Your task to perform on an android device: set default search engine in the chrome app Image 0: 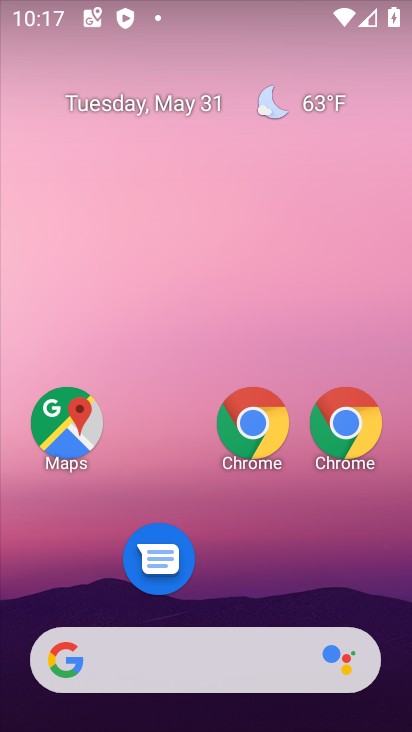
Step 0: click (194, 27)
Your task to perform on an android device: set default search engine in the chrome app Image 1: 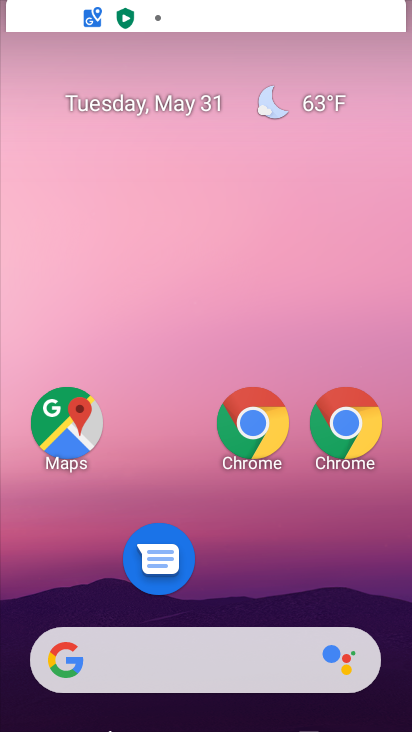
Step 1: drag from (231, 555) to (180, 90)
Your task to perform on an android device: set default search engine in the chrome app Image 2: 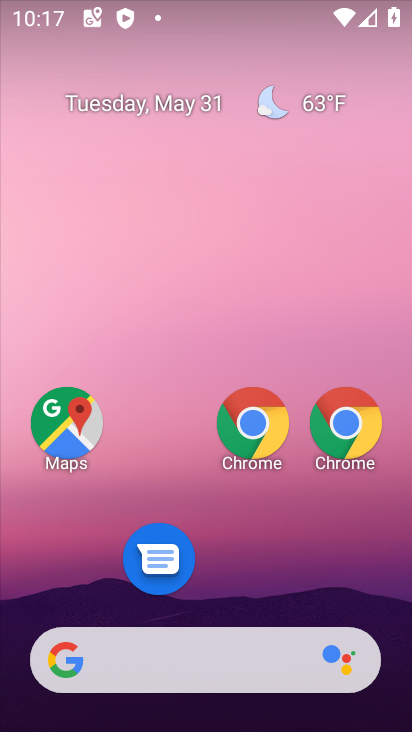
Step 2: drag from (248, 685) to (132, 87)
Your task to perform on an android device: set default search engine in the chrome app Image 3: 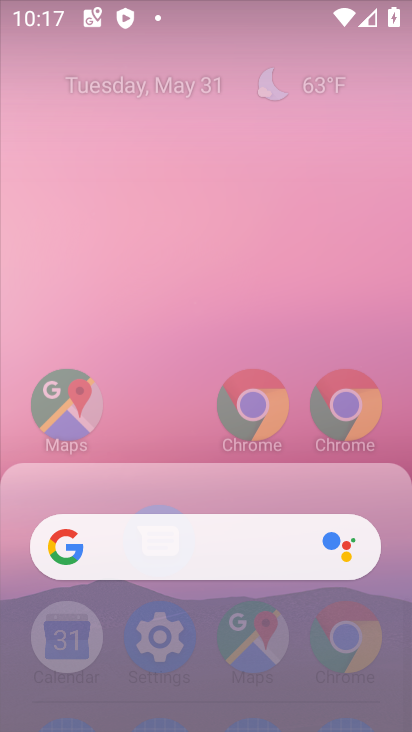
Step 3: drag from (173, 476) to (176, 12)
Your task to perform on an android device: set default search engine in the chrome app Image 4: 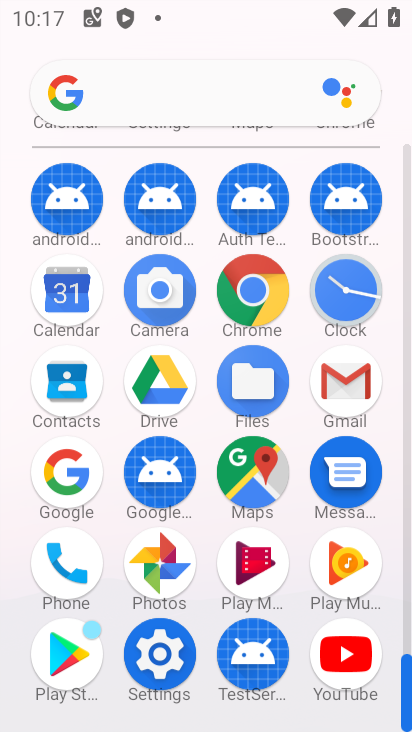
Step 4: drag from (217, 500) to (154, 30)
Your task to perform on an android device: set default search engine in the chrome app Image 5: 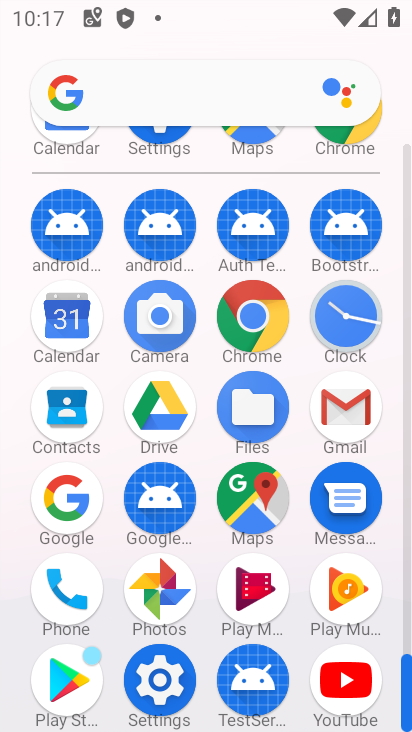
Step 5: click (246, 312)
Your task to perform on an android device: set default search engine in the chrome app Image 6: 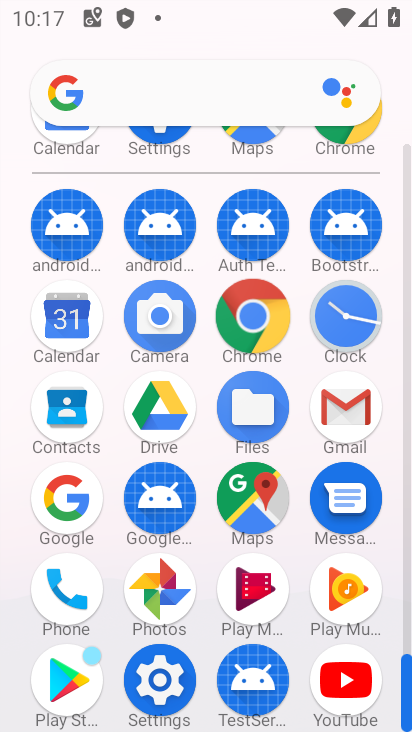
Step 6: click (249, 315)
Your task to perform on an android device: set default search engine in the chrome app Image 7: 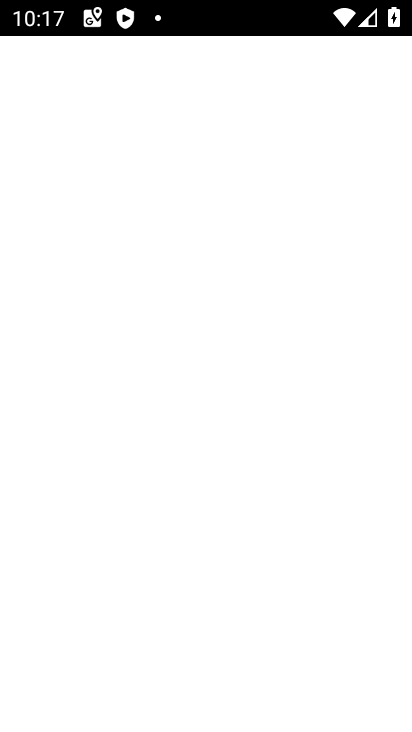
Step 7: click (242, 320)
Your task to perform on an android device: set default search engine in the chrome app Image 8: 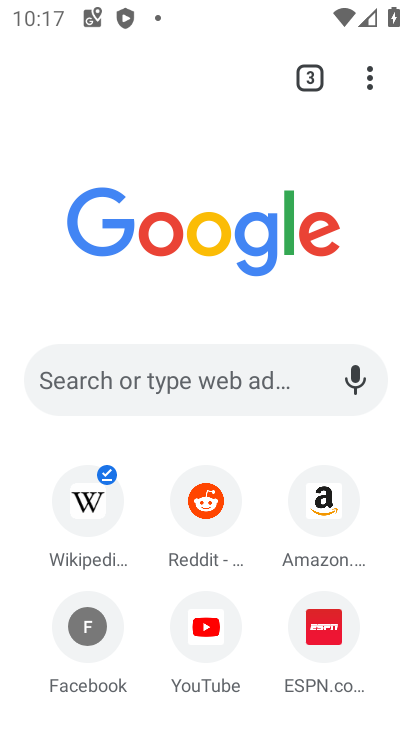
Step 8: drag from (370, 81) to (69, 614)
Your task to perform on an android device: set default search engine in the chrome app Image 9: 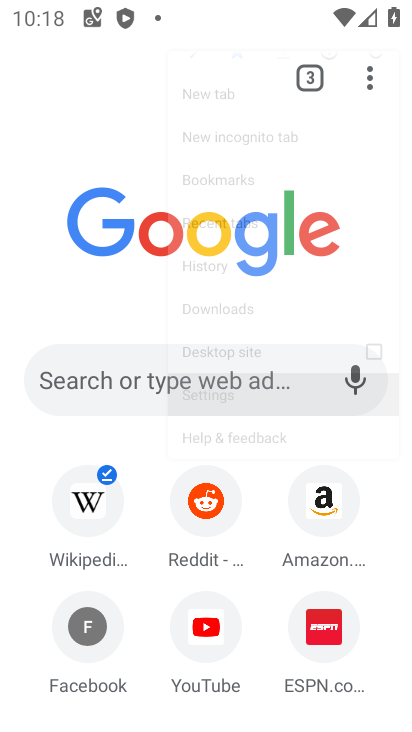
Step 9: click (80, 614)
Your task to perform on an android device: set default search engine in the chrome app Image 10: 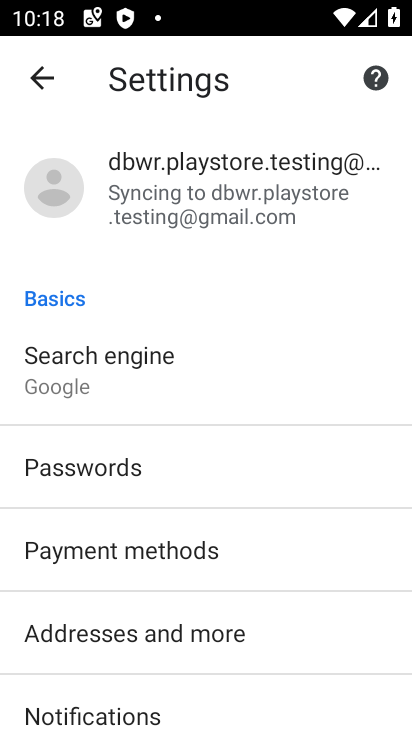
Step 10: click (59, 367)
Your task to perform on an android device: set default search engine in the chrome app Image 11: 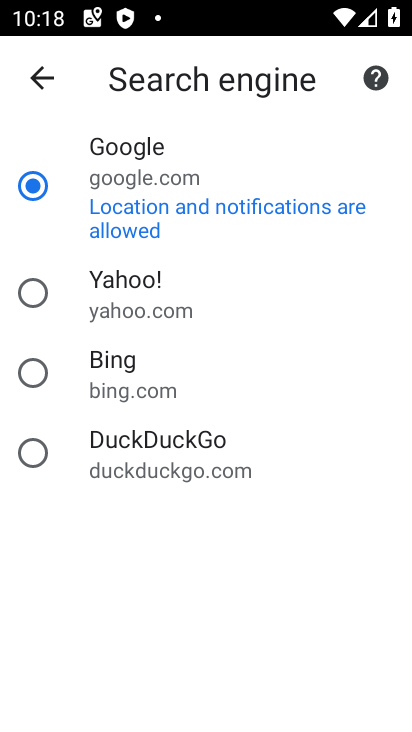
Step 11: click (36, 288)
Your task to perform on an android device: set default search engine in the chrome app Image 12: 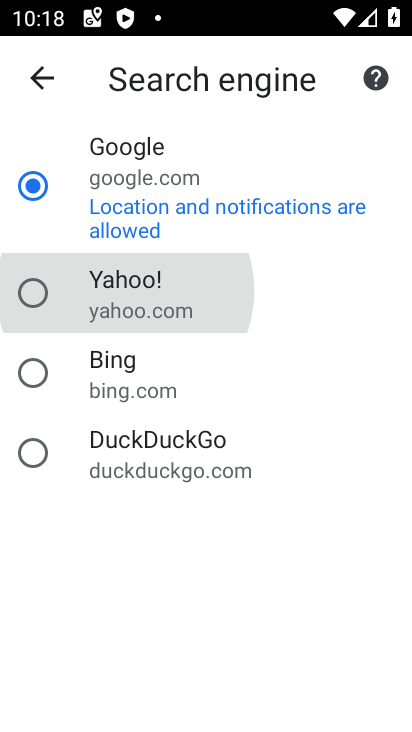
Step 12: click (36, 288)
Your task to perform on an android device: set default search engine in the chrome app Image 13: 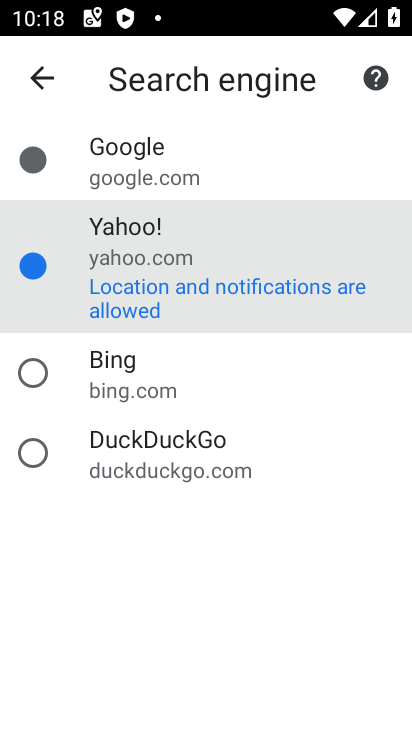
Step 13: click (36, 290)
Your task to perform on an android device: set default search engine in the chrome app Image 14: 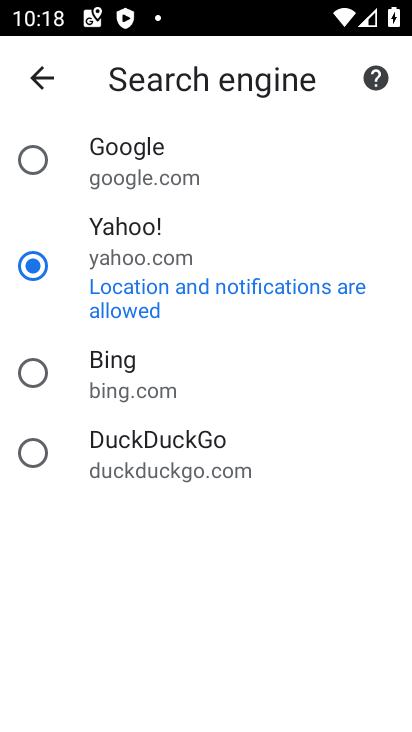
Step 14: click (24, 163)
Your task to perform on an android device: set default search engine in the chrome app Image 15: 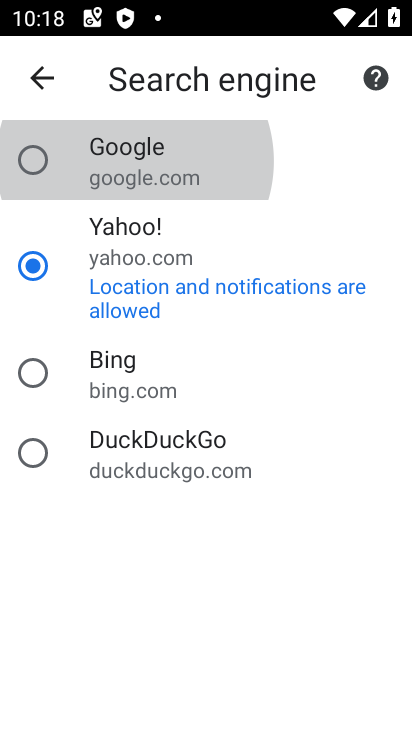
Step 15: click (30, 164)
Your task to perform on an android device: set default search engine in the chrome app Image 16: 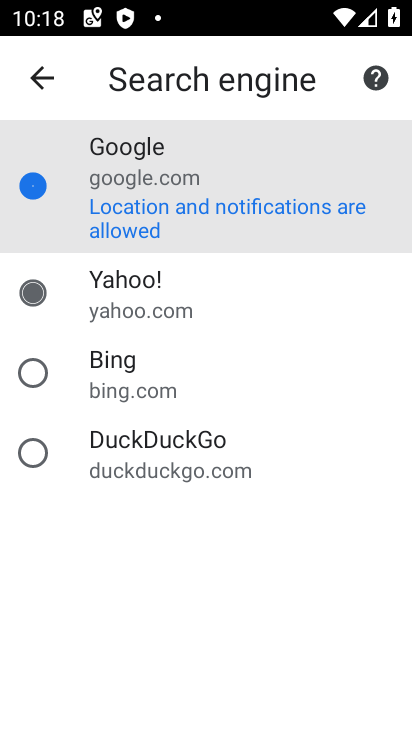
Step 16: click (34, 166)
Your task to perform on an android device: set default search engine in the chrome app Image 17: 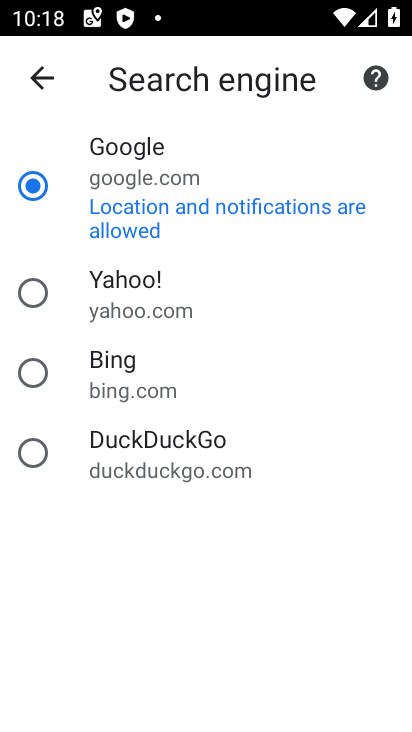
Step 17: task complete